Your task to perform on an android device: allow cookies in the chrome app Image 0: 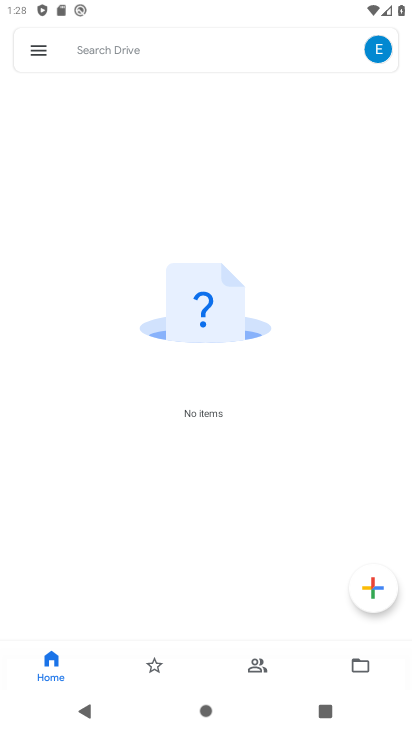
Step 0: press home button
Your task to perform on an android device: allow cookies in the chrome app Image 1: 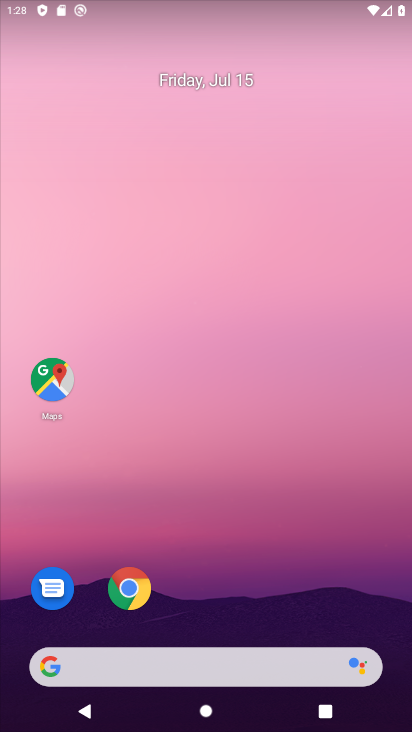
Step 1: click (126, 589)
Your task to perform on an android device: allow cookies in the chrome app Image 2: 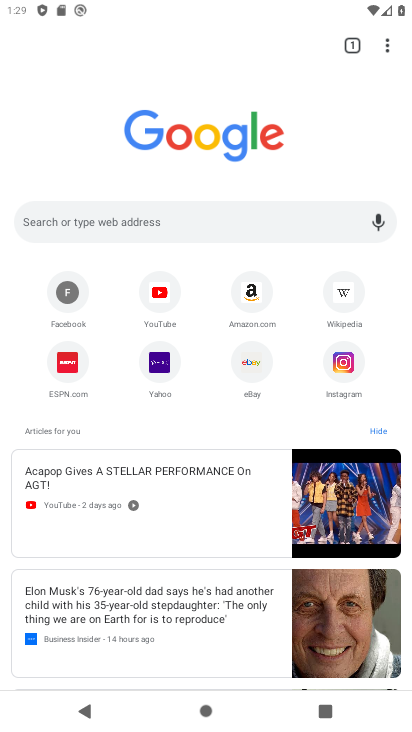
Step 2: click (388, 47)
Your task to perform on an android device: allow cookies in the chrome app Image 3: 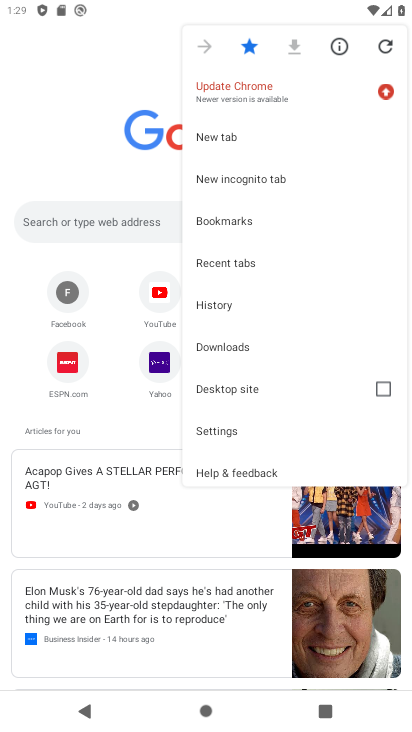
Step 3: click (226, 429)
Your task to perform on an android device: allow cookies in the chrome app Image 4: 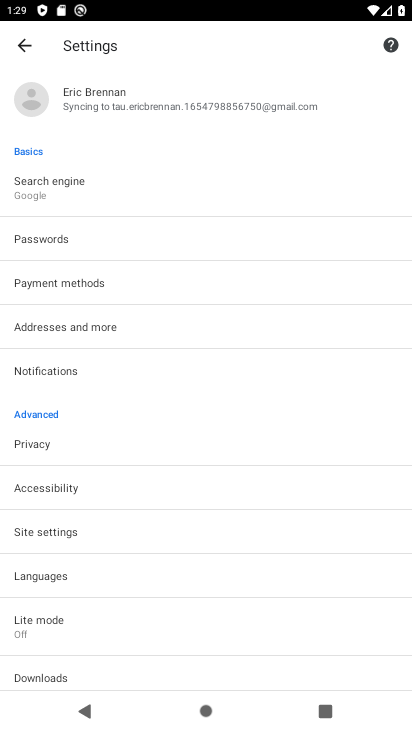
Step 4: click (51, 533)
Your task to perform on an android device: allow cookies in the chrome app Image 5: 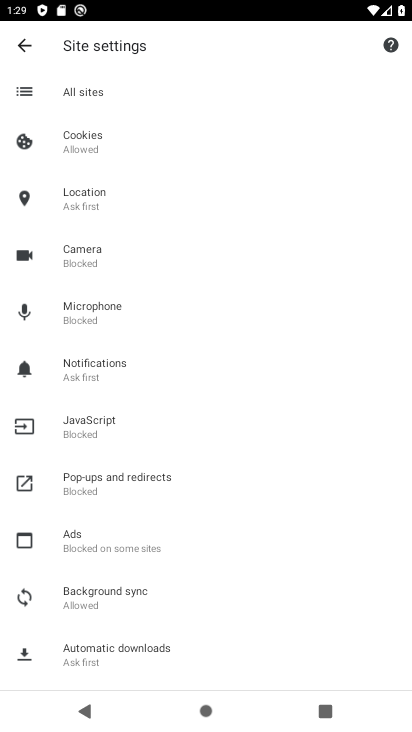
Step 5: click (99, 145)
Your task to perform on an android device: allow cookies in the chrome app Image 6: 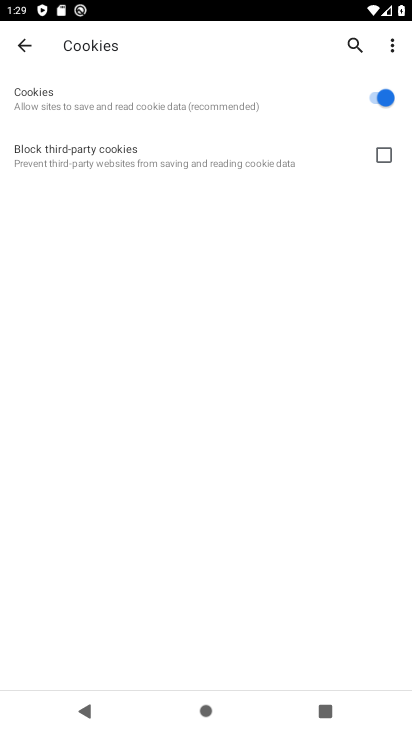
Step 6: click (386, 156)
Your task to perform on an android device: allow cookies in the chrome app Image 7: 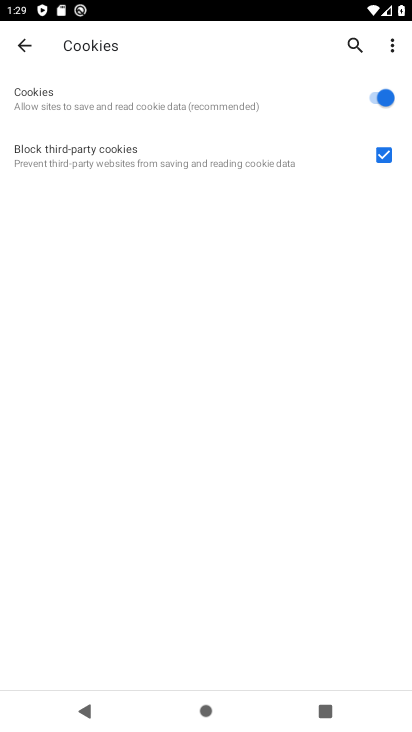
Step 7: task complete